Your task to perform on an android device: What's on my calendar tomorrow? Image 0: 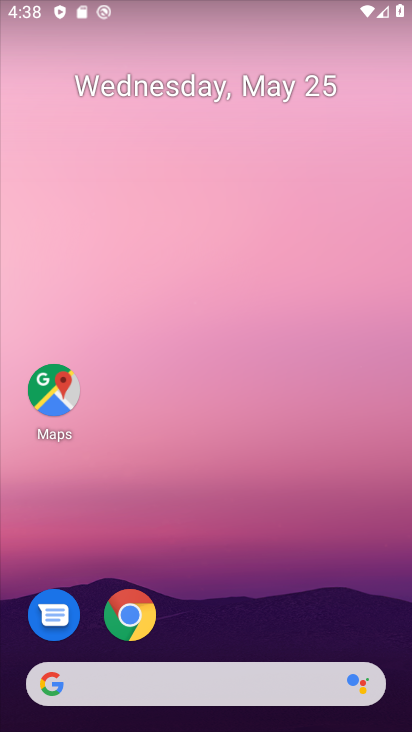
Step 0: press home button
Your task to perform on an android device: What's on my calendar tomorrow? Image 1: 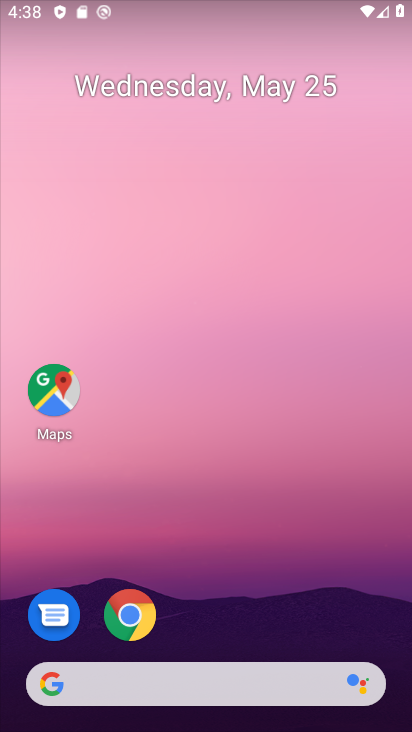
Step 1: drag from (223, 590) to (262, 157)
Your task to perform on an android device: What's on my calendar tomorrow? Image 2: 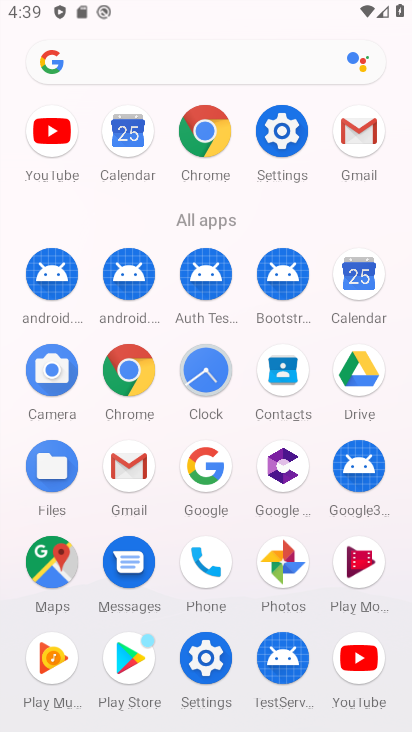
Step 2: click (354, 273)
Your task to perform on an android device: What's on my calendar tomorrow? Image 3: 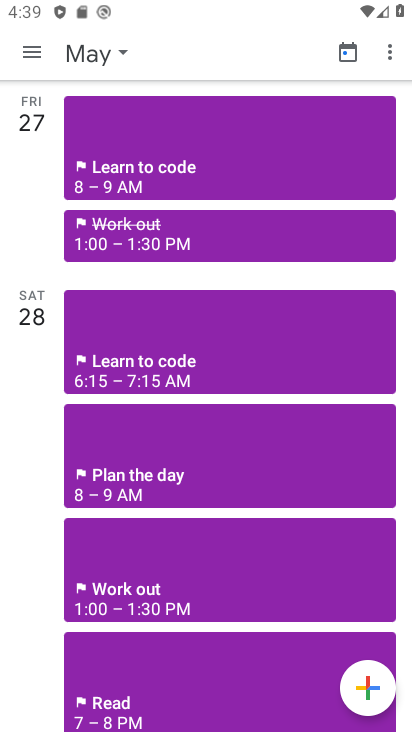
Step 3: click (128, 46)
Your task to perform on an android device: What's on my calendar tomorrow? Image 4: 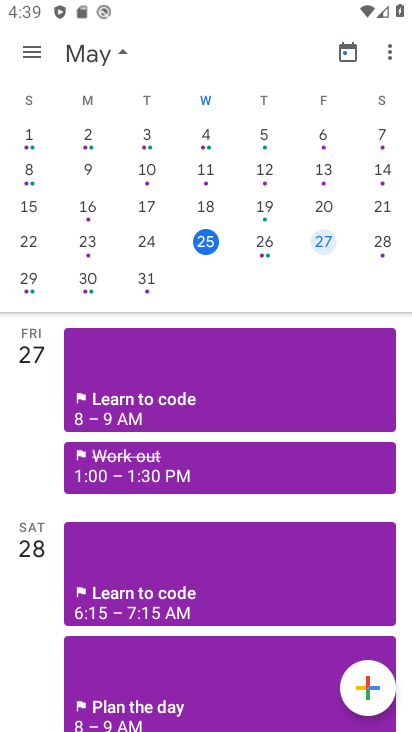
Step 4: click (264, 234)
Your task to perform on an android device: What's on my calendar tomorrow? Image 5: 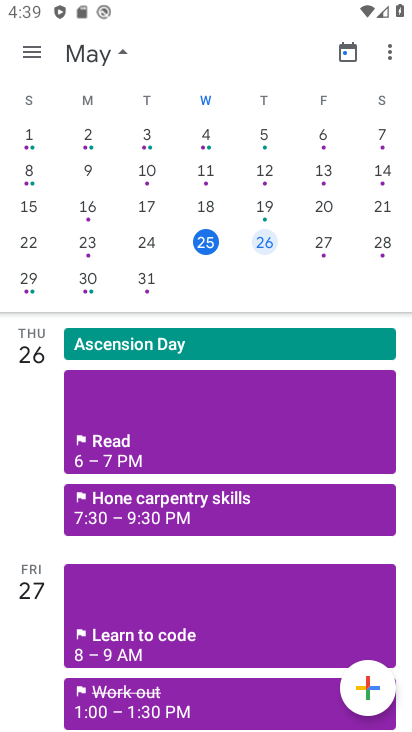
Step 5: click (121, 60)
Your task to perform on an android device: What's on my calendar tomorrow? Image 6: 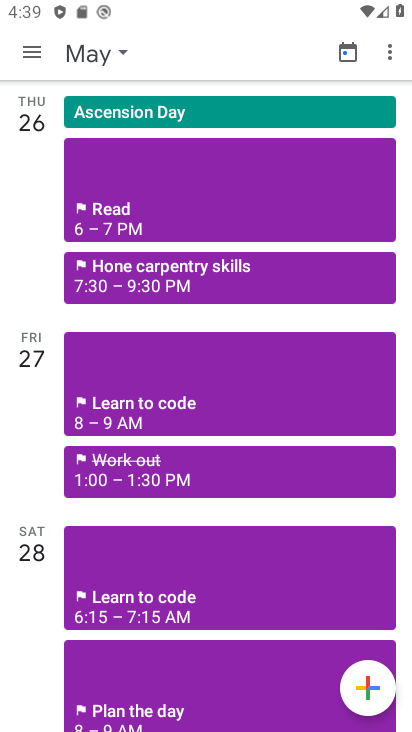
Step 6: task complete